Your task to perform on an android device: turn smart compose on in the gmail app Image 0: 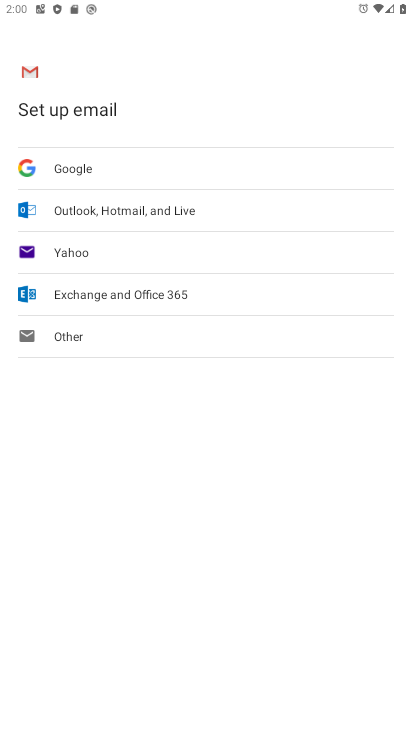
Step 0: press home button
Your task to perform on an android device: turn smart compose on in the gmail app Image 1: 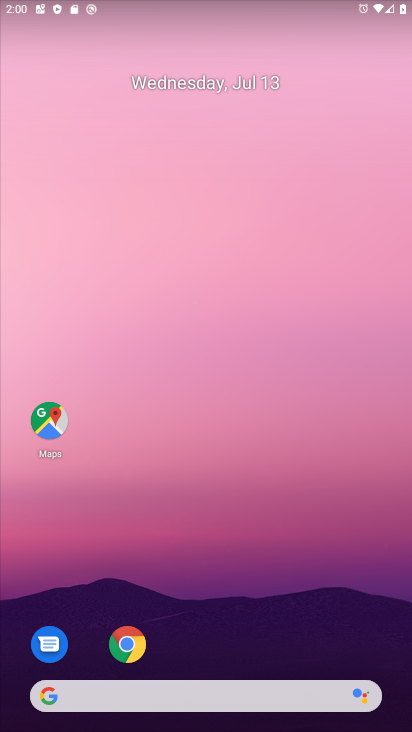
Step 1: drag from (211, 669) to (118, 68)
Your task to perform on an android device: turn smart compose on in the gmail app Image 2: 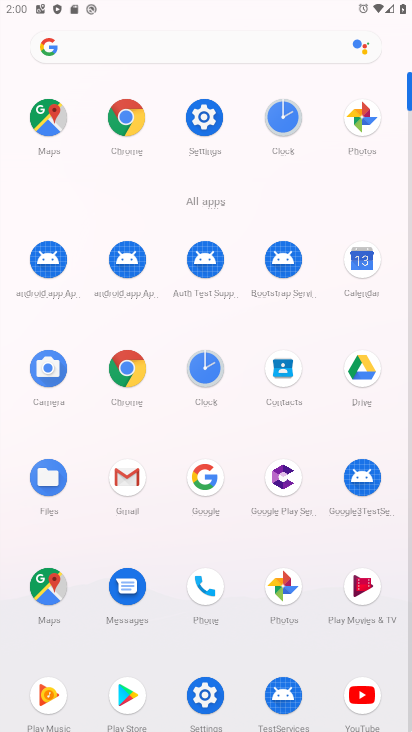
Step 2: click (124, 498)
Your task to perform on an android device: turn smart compose on in the gmail app Image 3: 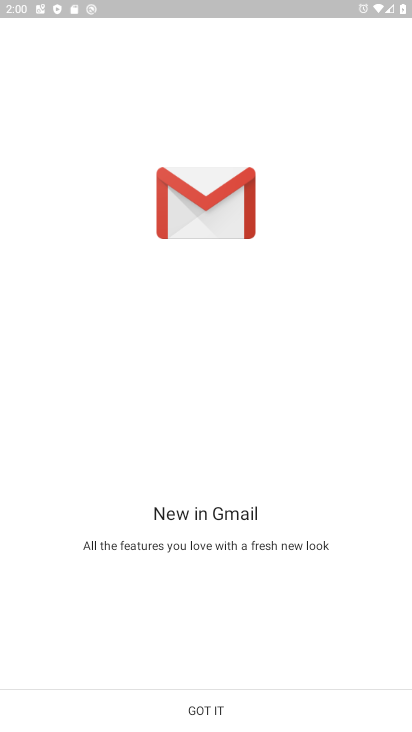
Step 3: click (226, 720)
Your task to perform on an android device: turn smart compose on in the gmail app Image 4: 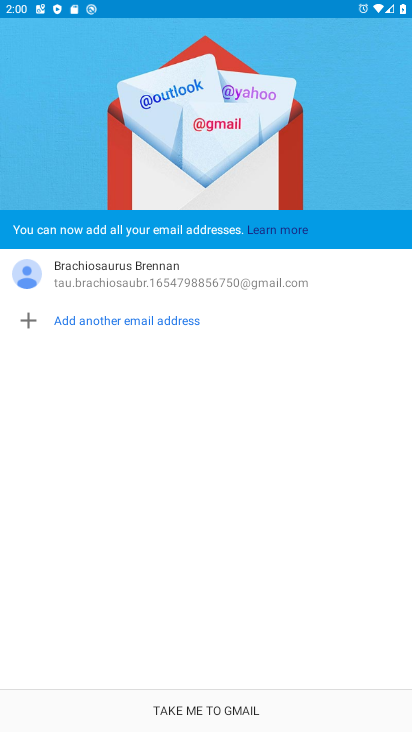
Step 4: click (226, 716)
Your task to perform on an android device: turn smart compose on in the gmail app Image 5: 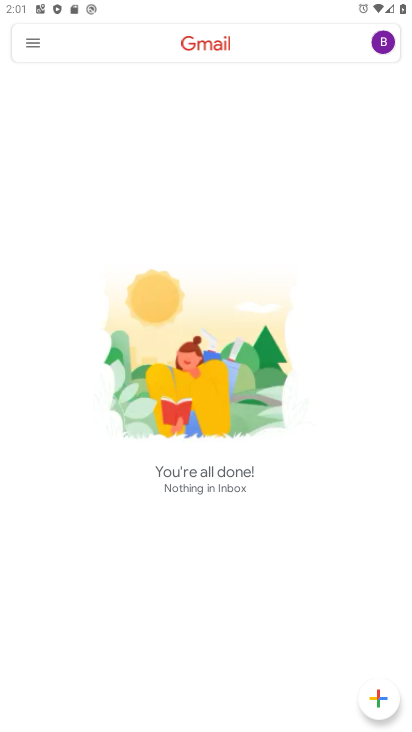
Step 5: drag from (32, 50) to (29, 488)
Your task to perform on an android device: turn smart compose on in the gmail app Image 6: 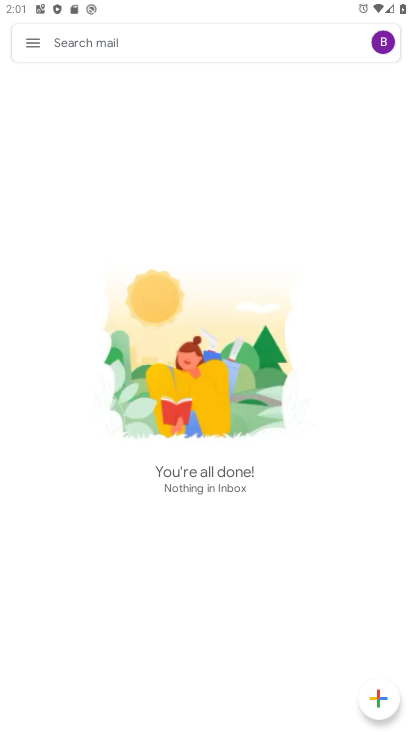
Step 6: click (33, 39)
Your task to perform on an android device: turn smart compose on in the gmail app Image 7: 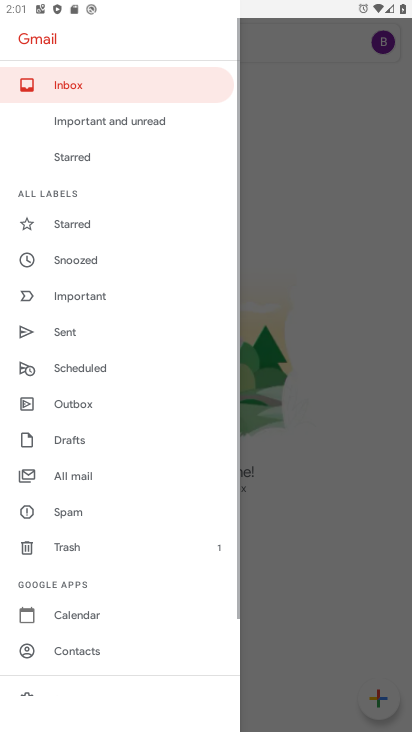
Step 7: drag from (98, 615) to (55, 266)
Your task to perform on an android device: turn smart compose on in the gmail app Image 8: 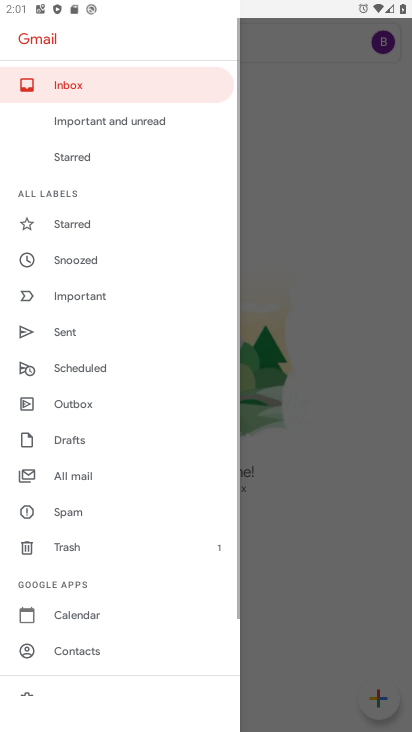
Step 8: drag from (47, 454) to (56, 325)
Your task to perform on an android device: turn smart compose on in the gmail app Image 9: 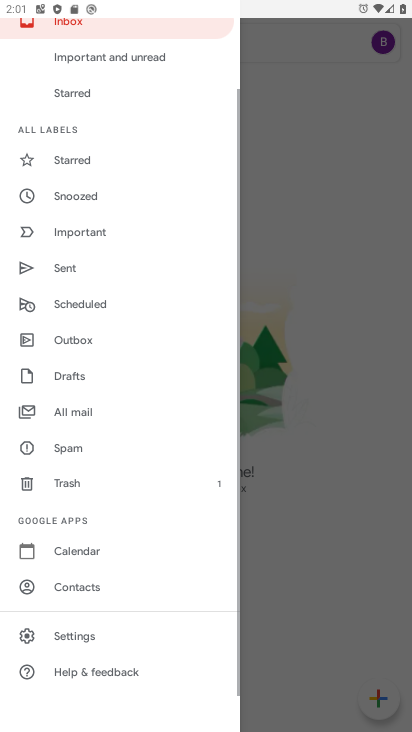
Step 9: click (100, 633)
Your task to perform on an android device: turn smart compose on in the gmail app Image 10: 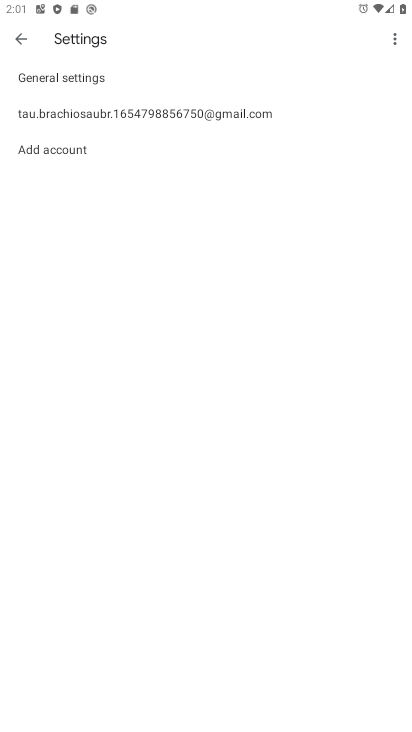
Step 10: click (85, 121)
Your task to perform on an android device: turn smart compose on in the gmail app Image 11: 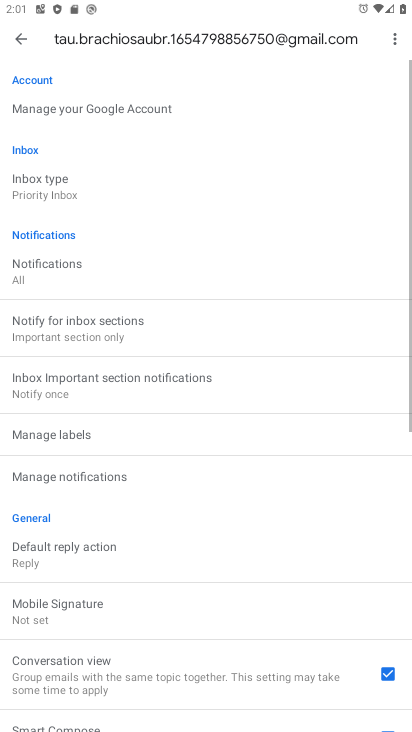
Step 11: task complete